Your task to perform on an android device: change your default location settings in chrome Image 0: 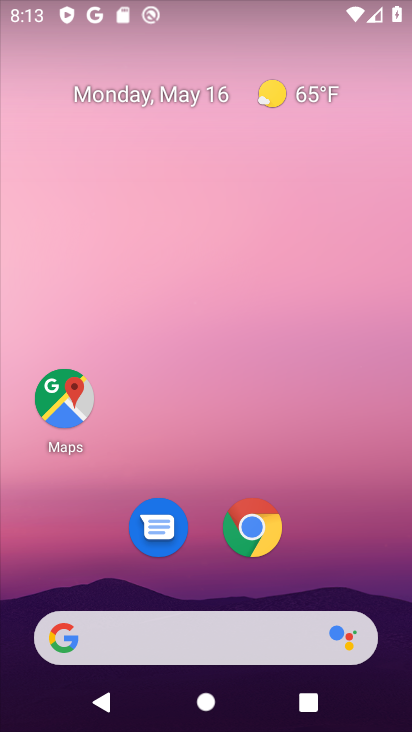
Step 0: drag from (292, 536) to (286, 220)
Your task to perform on an android device: change your default location settings in chrome Image 1: 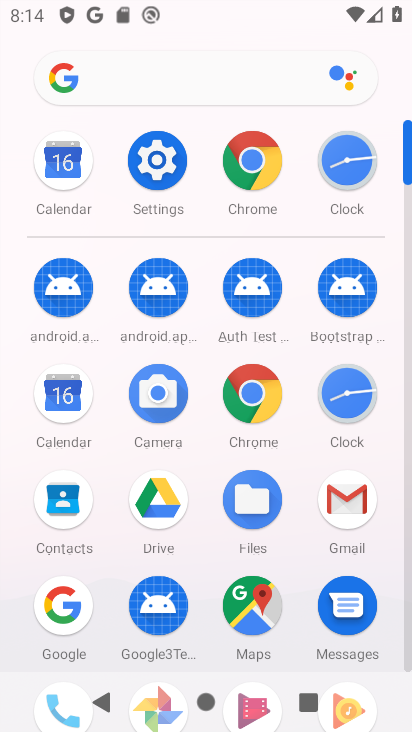
Step 1: click (248, 394)
Your task to perform on an android device: change your default location settings in chrome Image 2: 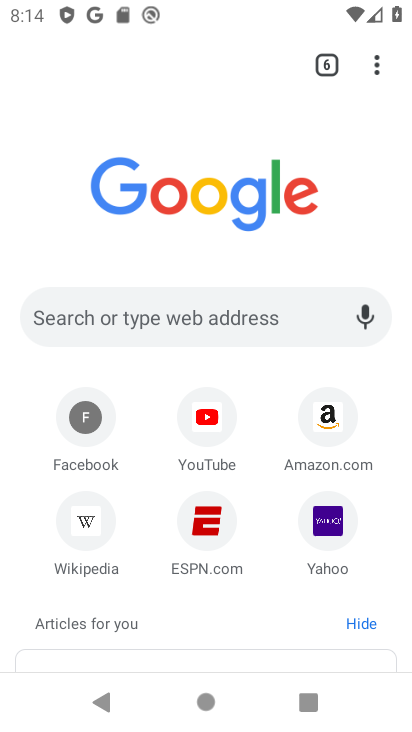
Step 2: click (367, 61)
Your task to perform on an android device: change your default location settings in chrome Image 3: 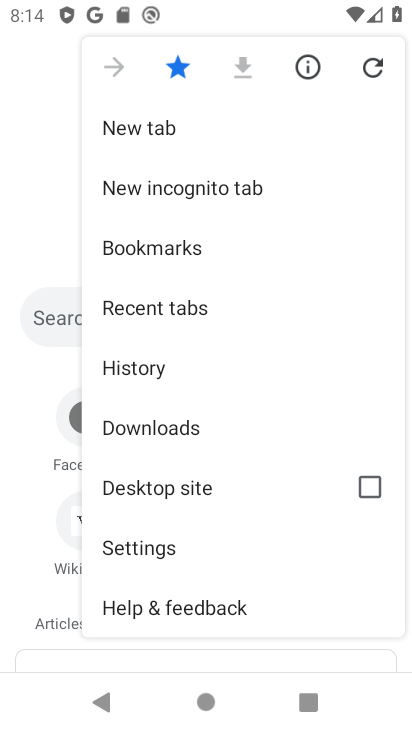
Step 3: drag from (208, 575) to (260, 278)
Your task to perform on an android device: change your default location settings in chrome Image 4: 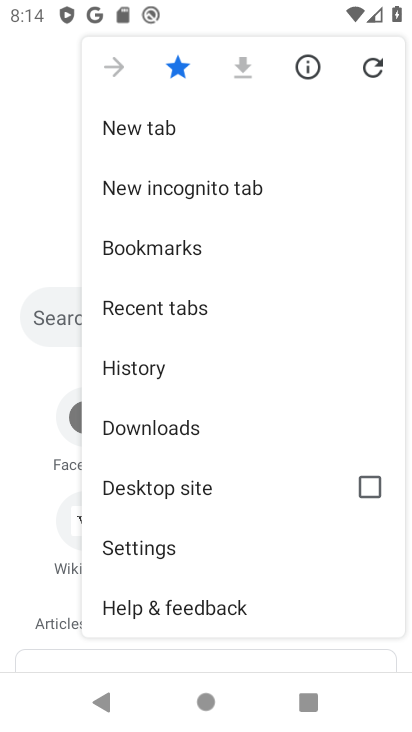
Step 4: click (162, 545)
Your task to perform on an android device: change your default location settings in chrome Image 5: 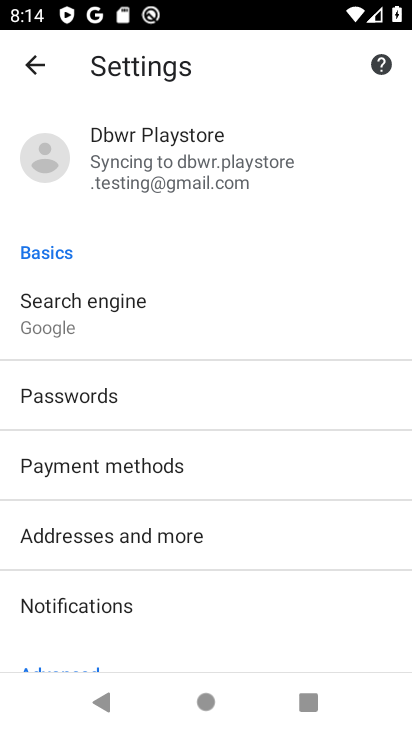
Step 5: drag from (145, 588) to (209, 291)
Your task to perform on an android device: change your default location settings in chrome Image 6: 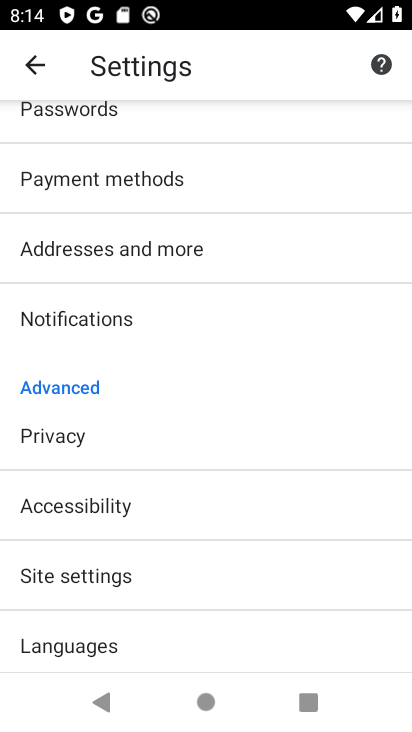
Step 6: drag from (124, 590) to (180, 457)
Your task to perform on an android device: change your default location settings in chrome Image 7: 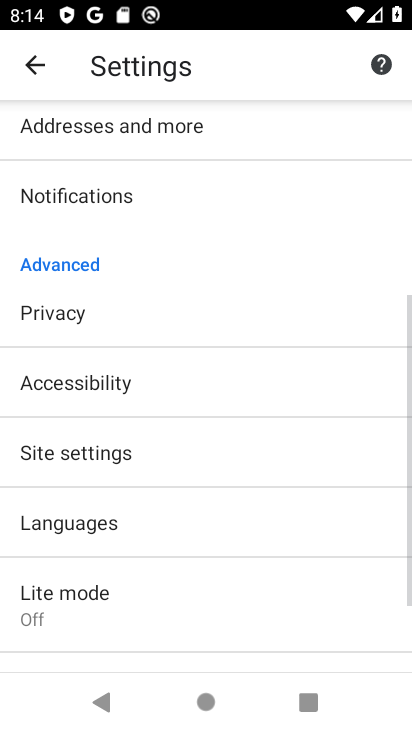
Step 7: click (127, 534)
Your task to perform on an android device: change your default location settings in chrome Image 8: 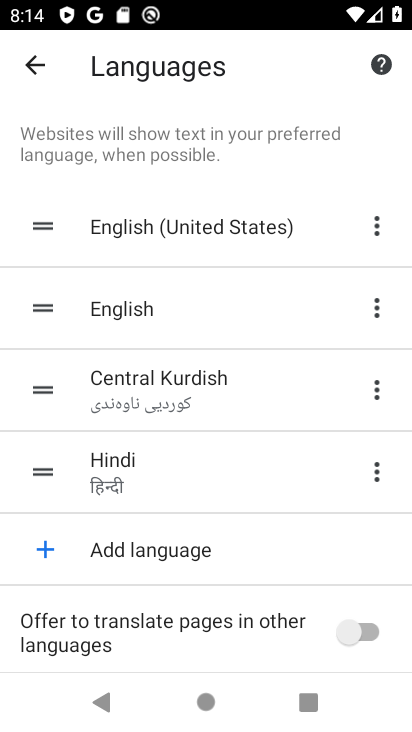
Step 8: click (31, 61)
Your task to perform on an android device: change your default location settings in chrome Image 9: 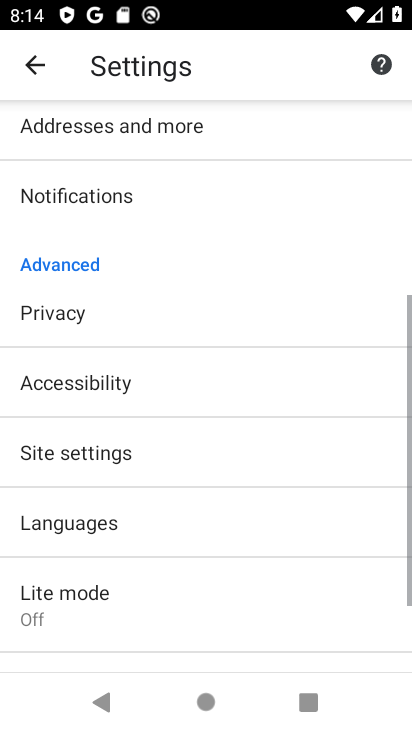
Step 9: click (150, 455)
Your task to perform on an android device: change your default location settings in chrome Image 10: 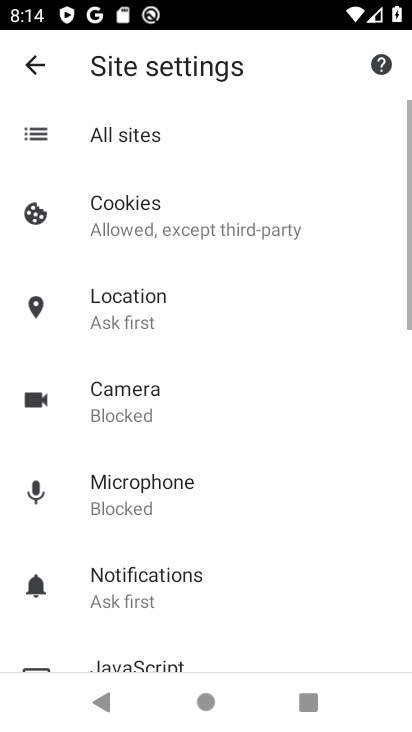
Step 10: click (154, 303)
Your task to perform on an android device: change your default location settings in chrome Image 11: 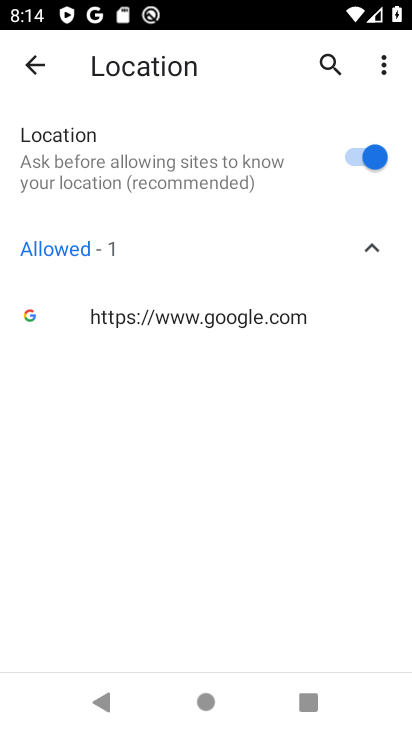
Step 11: click (340, 157)
Your task to perform on an android device: change your default location settings in chrome Image 12: 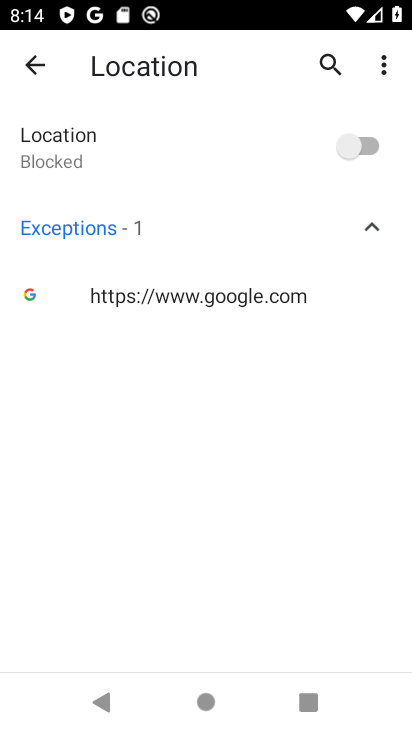
Step 12: task complete